Your task to perform on an android device: Search for dell xps on costco, select the first entry, add it to the cart, then select checkout. Image 0: 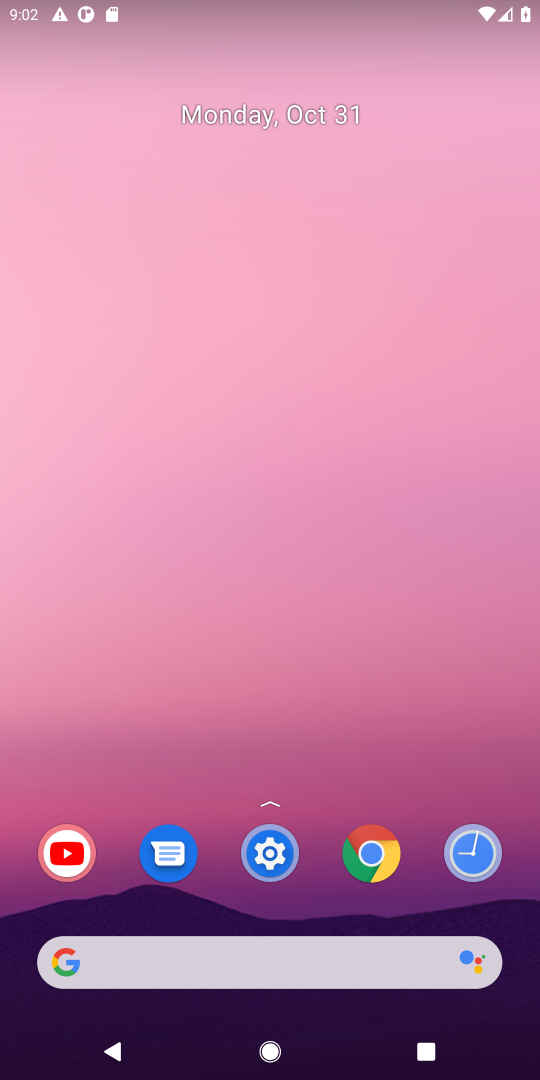
Step 0: click (163, 955)
Your task to perform on an android device: Search for dell xps on costco, select the first entry, add it to the cart, then select checkout. Image 1: 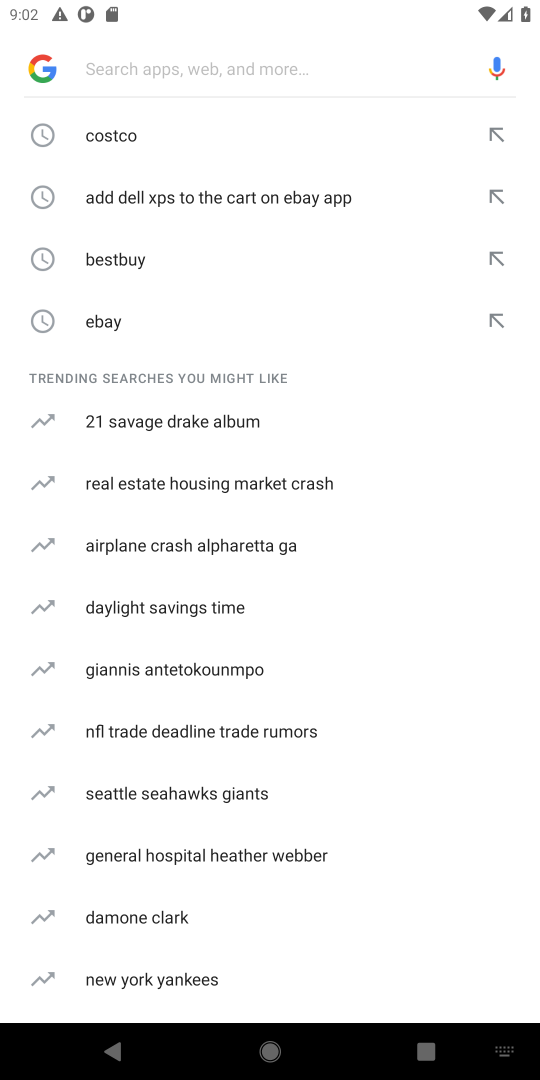
Step 1: type "costco"
Your task to perform on an android device: Search for dell xps on costco, select the first entry, add it to the cart, then select checkout. Image 2: 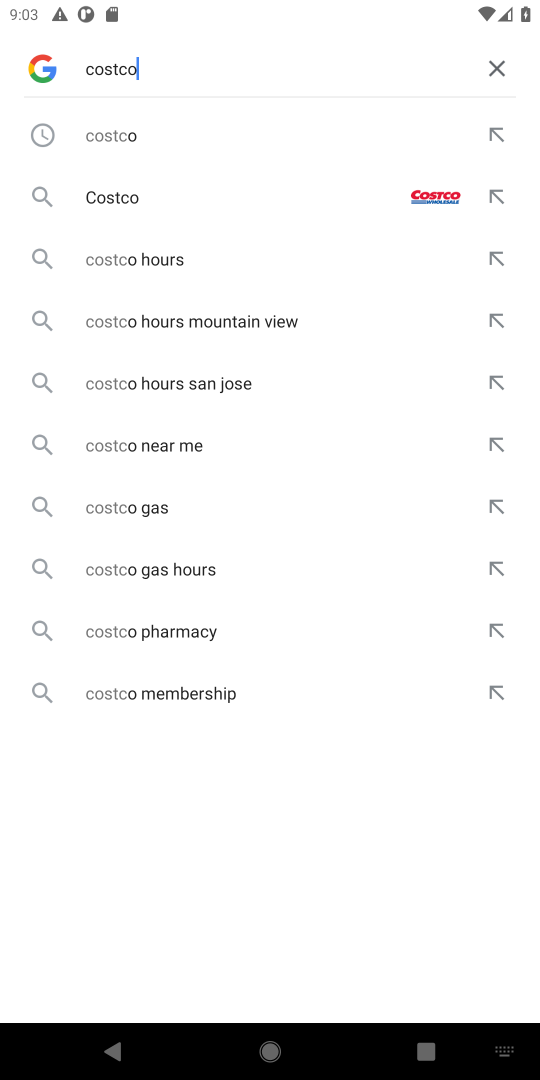
Step 2: click (130, 132)
Your task to perform on an android device: Search for dell xps on costco, select the first entry, add it to the cart, then select checkout. Image 3: 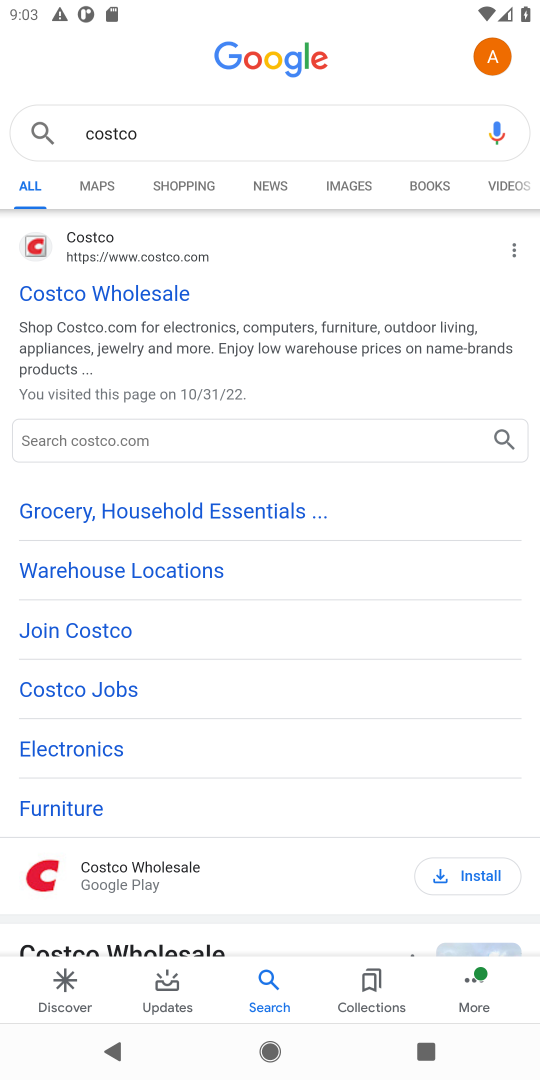
Step 3: click (82, 299)
Your task to perform on an android device: Search for dell xps on costco, select the first entry, add it to the cart, then select checkout. Image 4: 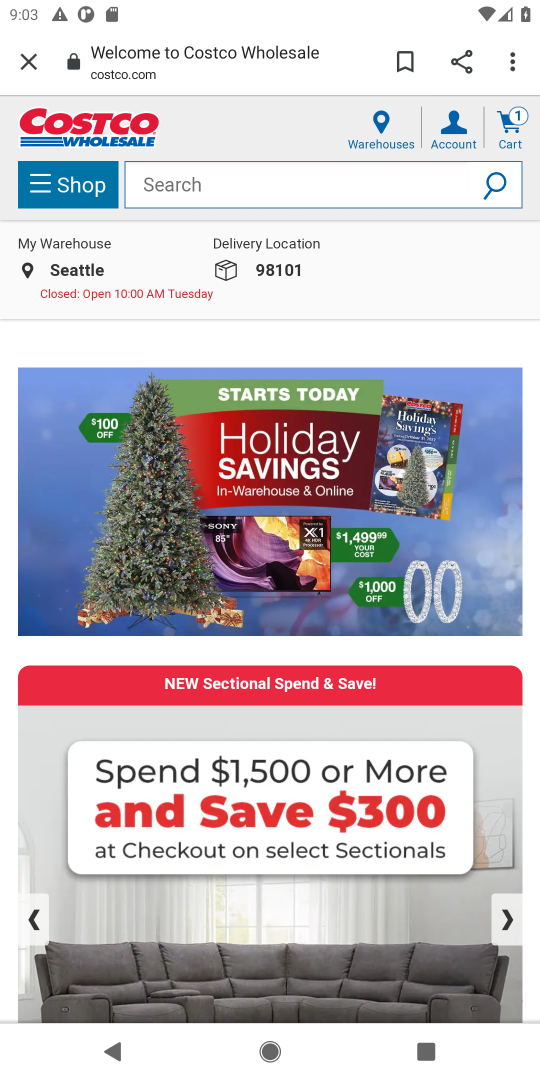
Step 4: click (169, 176)
Your task to perform on an android device: Search for dell xps on costco, select the first entry, add it to the cart, then select checkout. Image 5: 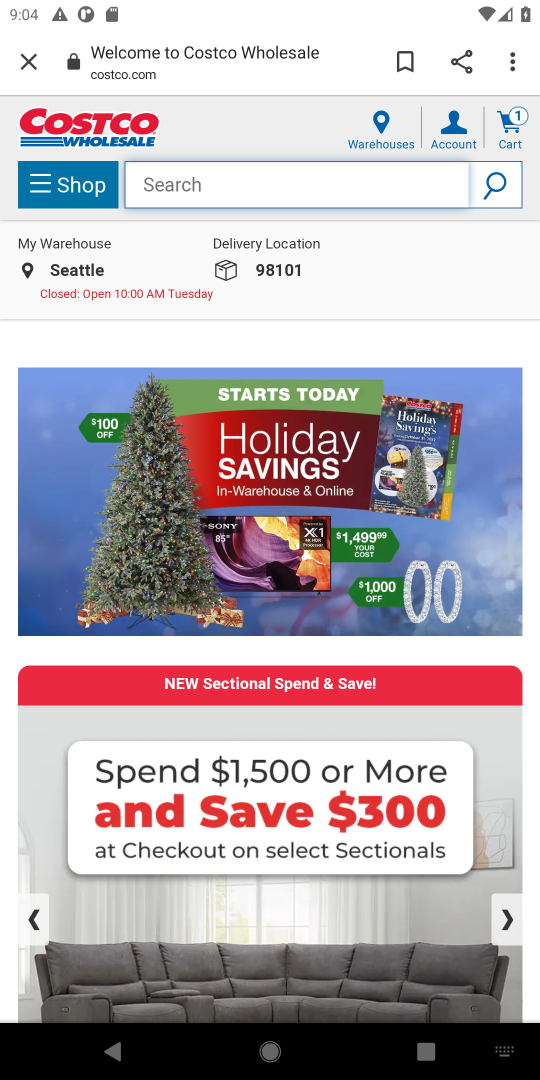
Step 5: type "dell xps"
Your task to perform on an android device: Search for dell xps on costco, select the first entry, add it to the cart, then select checkout. Image 6: 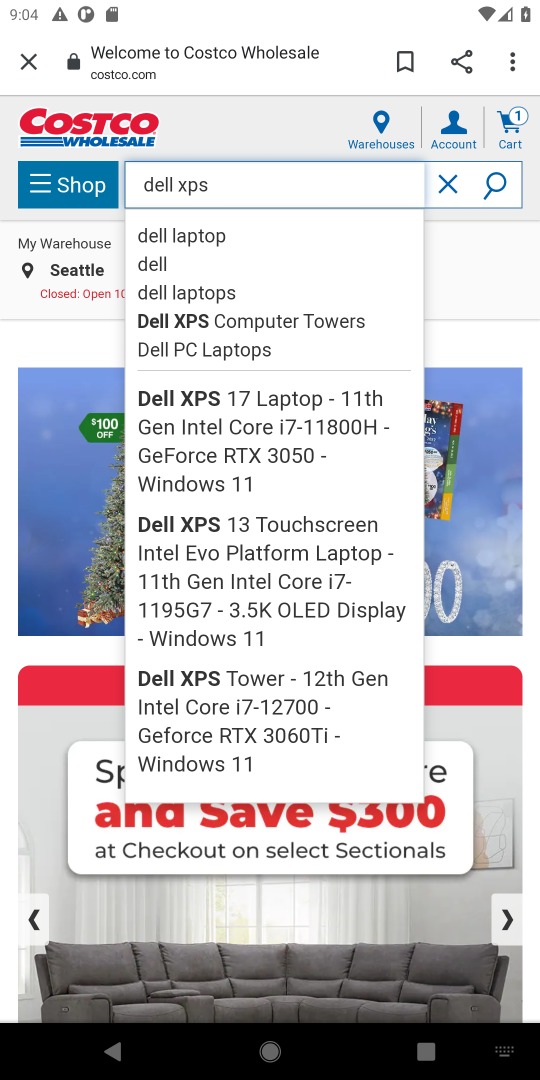
Step 6: click (188, 226)
Your task to perform on an android device: Search for dell xps on costco, select the first entry, add it to the cart, then select checkout. Image 7: 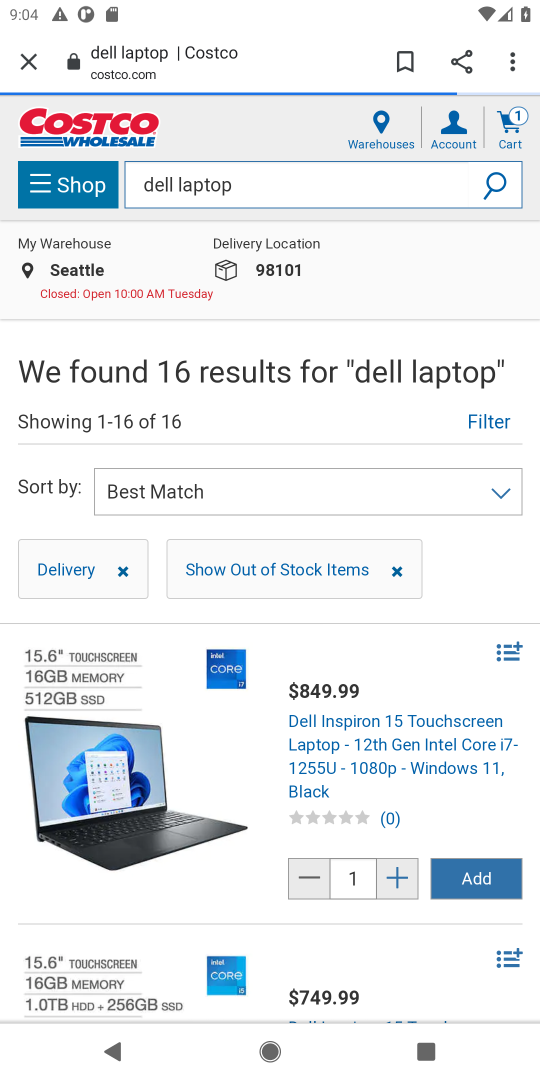
Step 7: click (454, 879)
Your task to perform on an android device: Search for dell xps on costco, select the first entry, add it to the cart, then select checkout. Image 8: 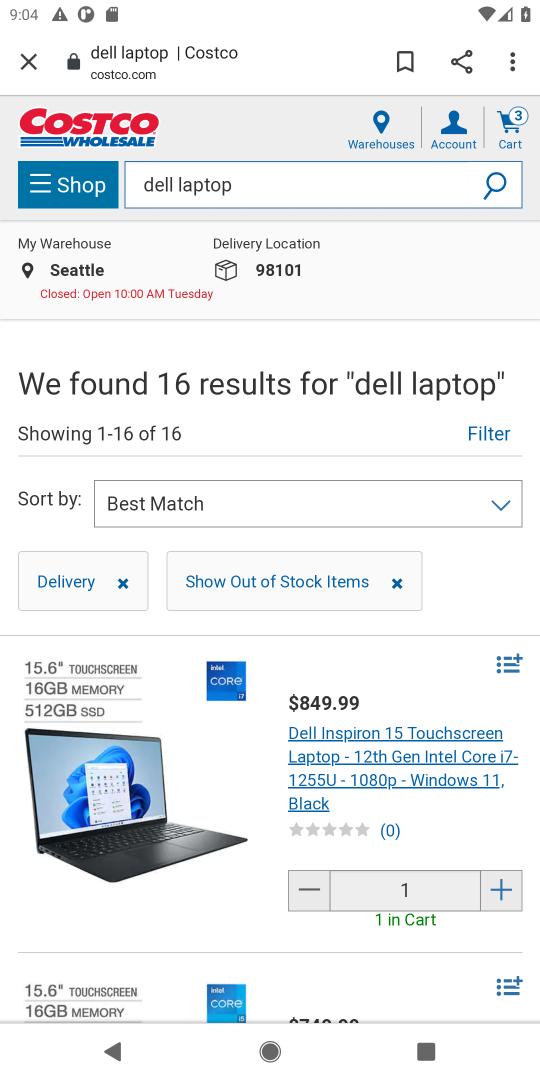
Step 8: click (509, 120)
Your task to perform on an android device: Search for dell xps on costco, select the first entry, add it to the cart, then select checkout. Image 9: 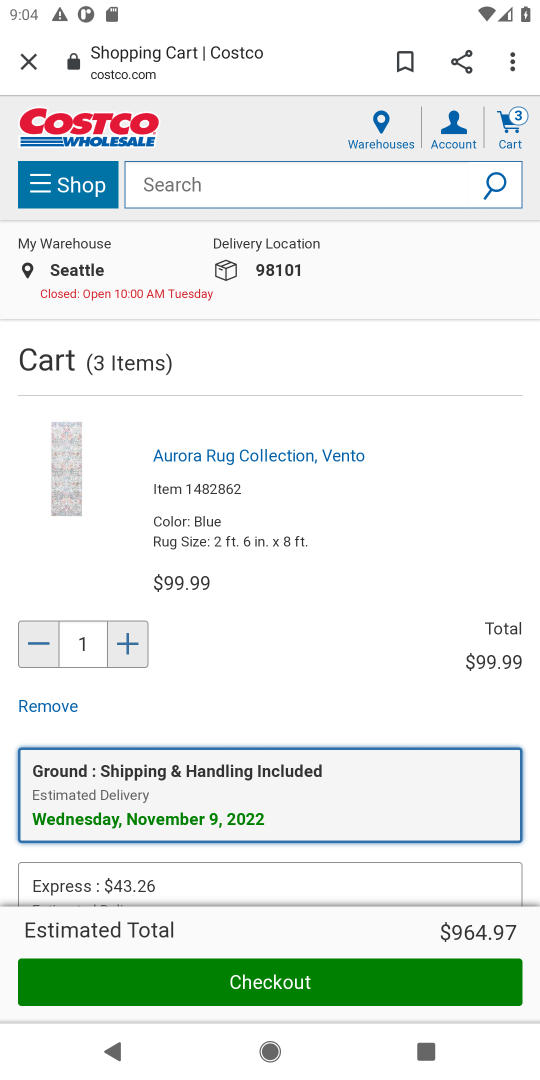
Step 9: click (271, 983)
Your task to perform on an android device: Search for dell xps on costco, select the first entry, add it to the cart, then select checkout. Image 10: 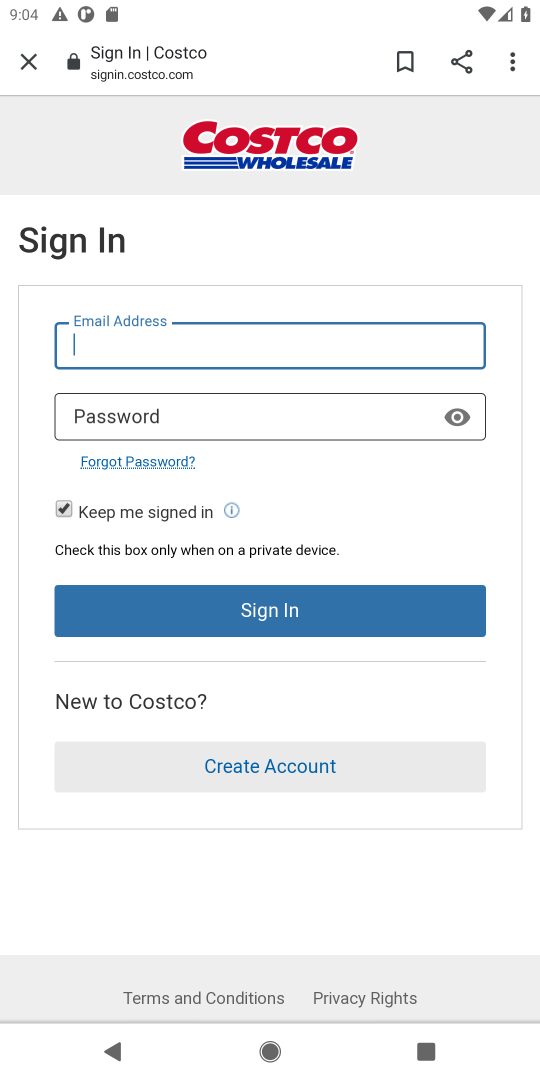
Step 10: task complete